Your task to perform on an android device: Go to network settings Image 0: 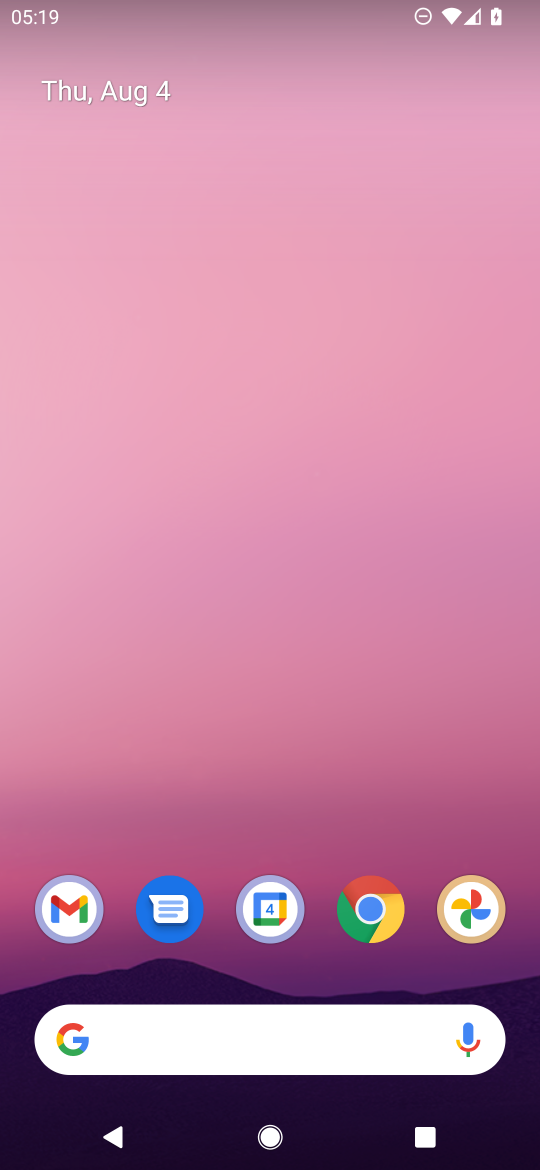
Step 0: press home button
Your task to perform on an android device: Go to network settings Image 1: 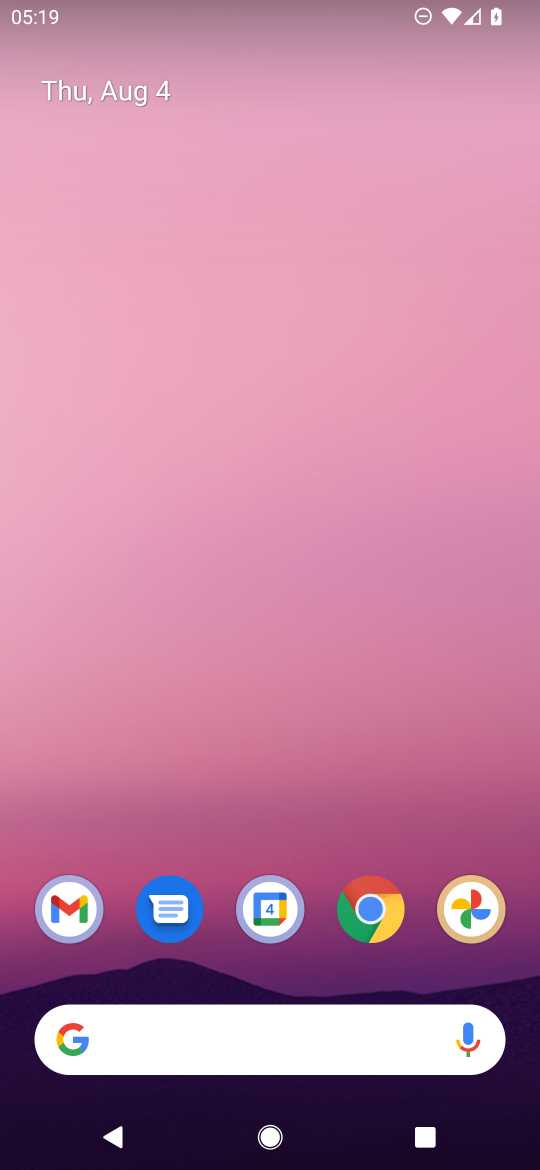
Step 1: drag from (339, 800) to (316, 228)
Your task to perform on an android device: Go to network settings Image 2: 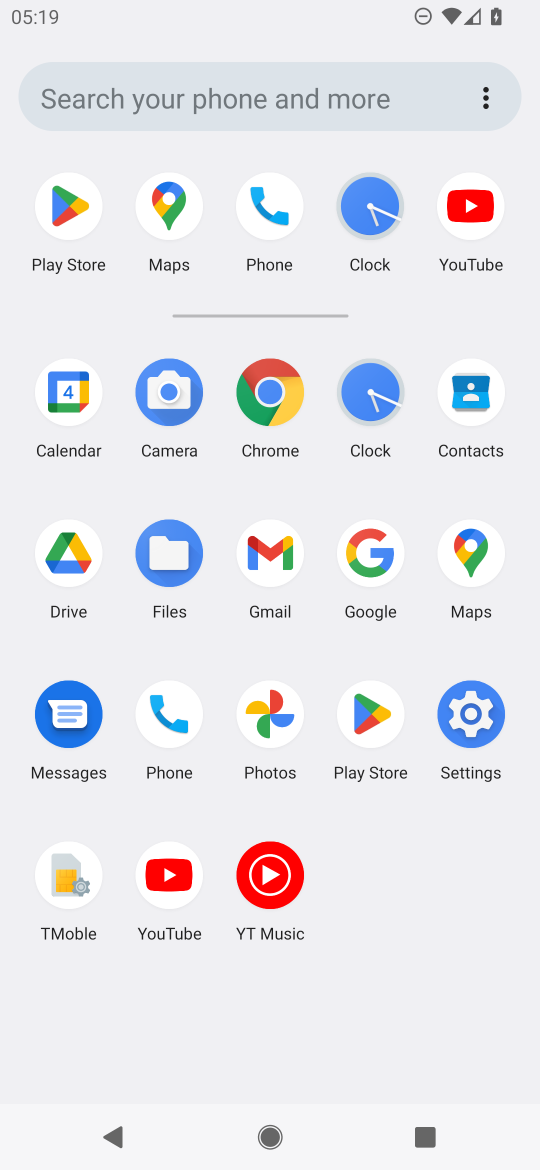
Step 2: click (474, 723)
Your task to perform on an android device: Go to network settings Image 3: 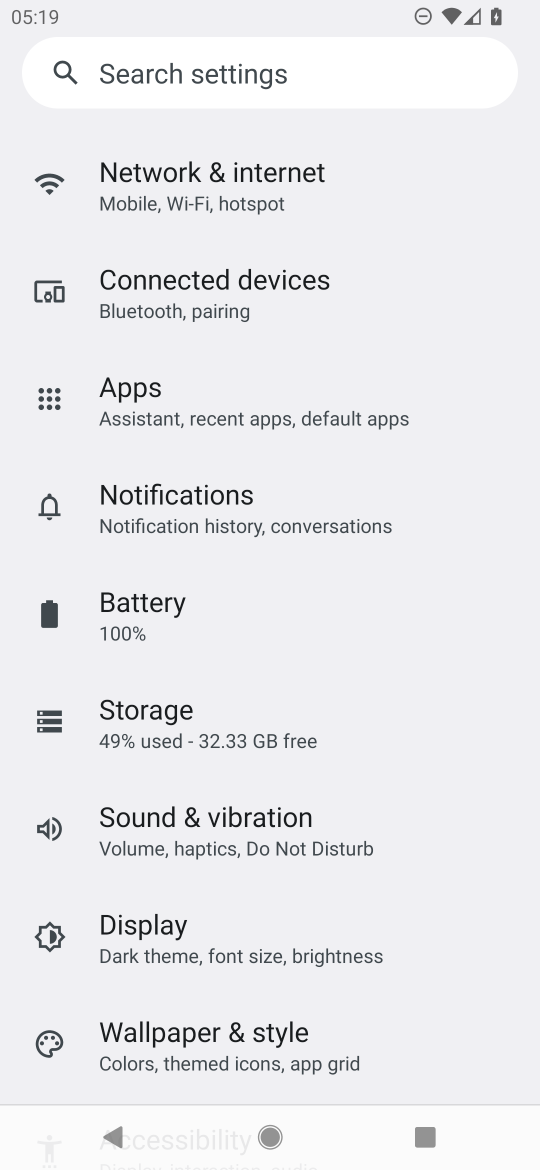
Step 3: click (201, 194)
Your task to perform on an android device: Go to network settings Image 4: 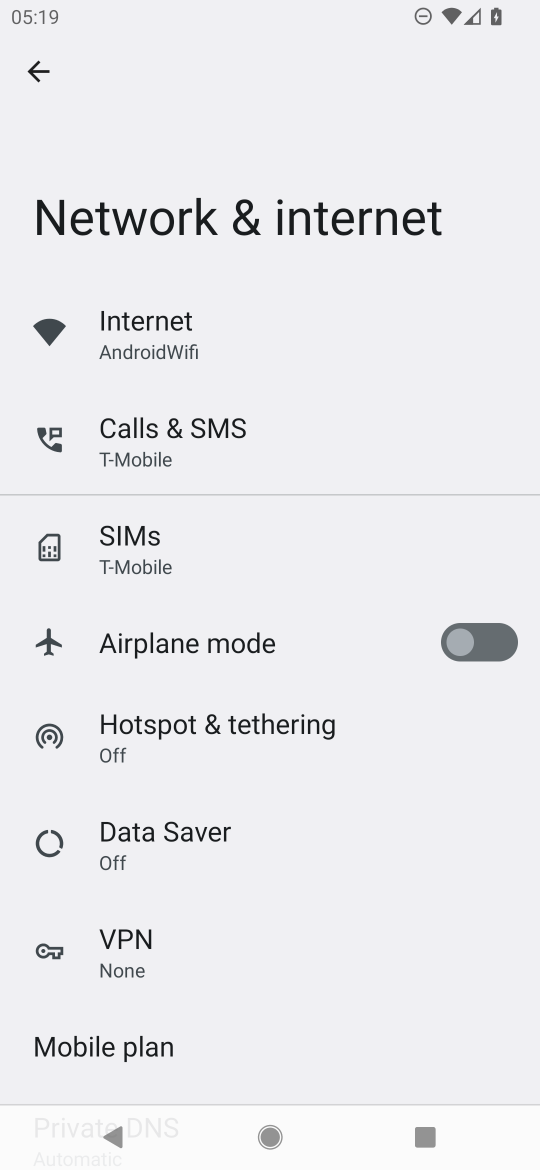
Step 4: task complete